Your task to perform on an android device: Clear the shopping cart on target.com. Add "amazon basics triple a" to the cart on target.com Image 0: 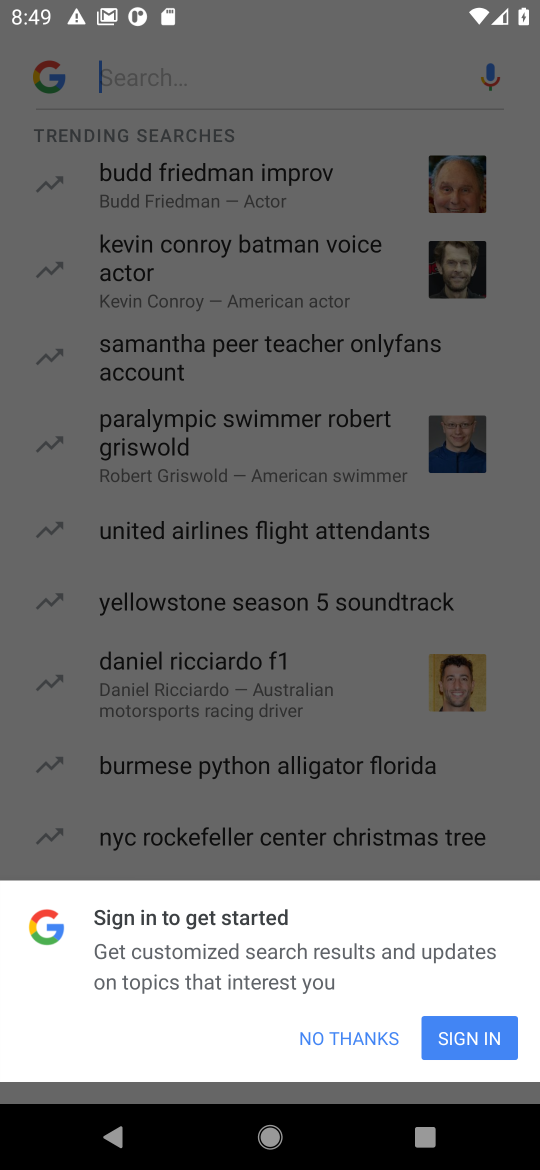
Step 0: press home button
Your task to perform on an android device: Clear the shopping cart on target.com. Add "amazon basics triple a" to the cart on target.com Image 1: 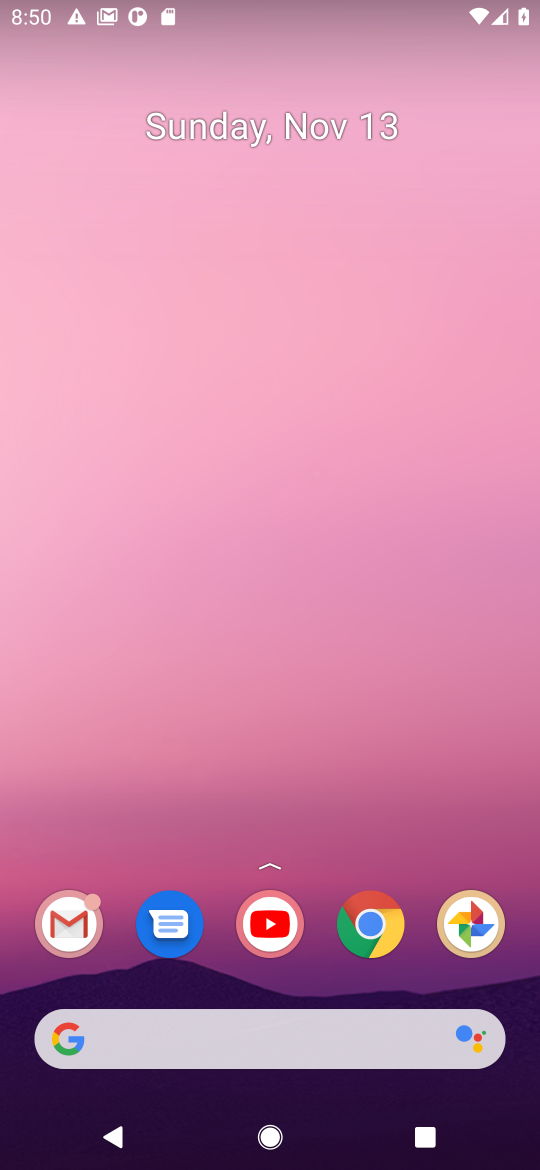
Step 1: click (370, 929)
Your task to perform on an android device: Clear the shopping cart on target.com. Add "amazon basics triple a" to the cart on target.com Image 2: 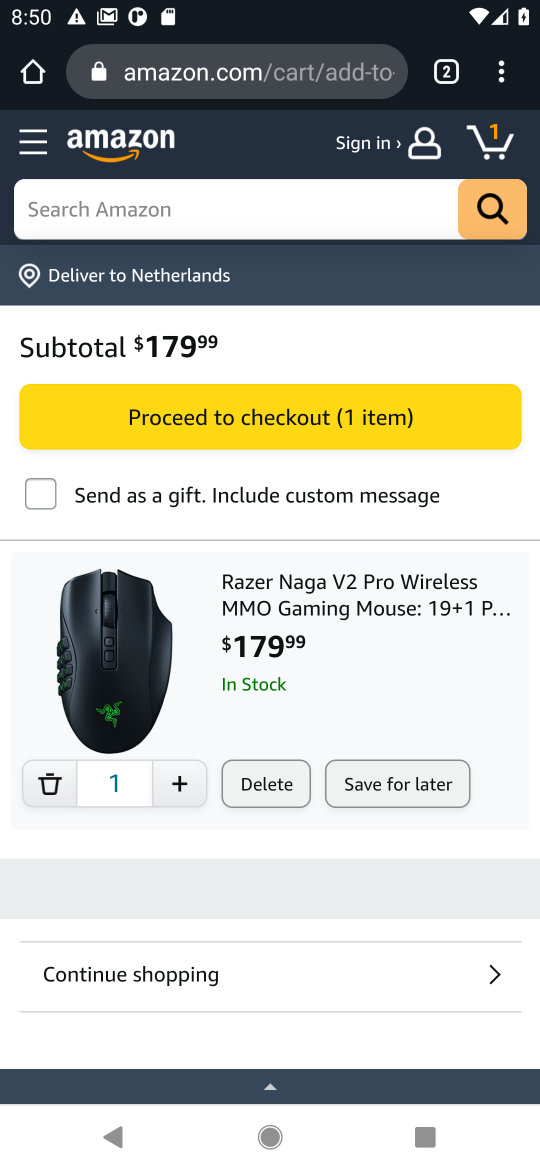
Step 2: click (300, 85)
Your task to perform on an android device: Clear the shopping cart on target.com. Add "amazon basics triple a" to the cart on target.com Image 3: 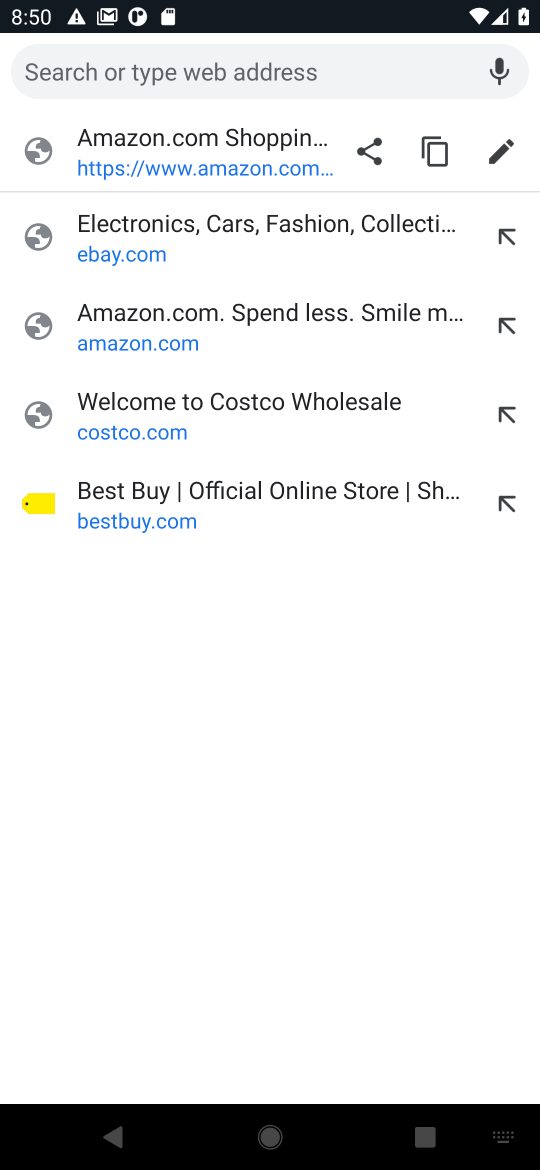
Step 3: type "target.com"
Your task to perform on an android device: Clear the shopping cart on target.com. Add "amazon basics triple a" to the cart on target.com Image 4: 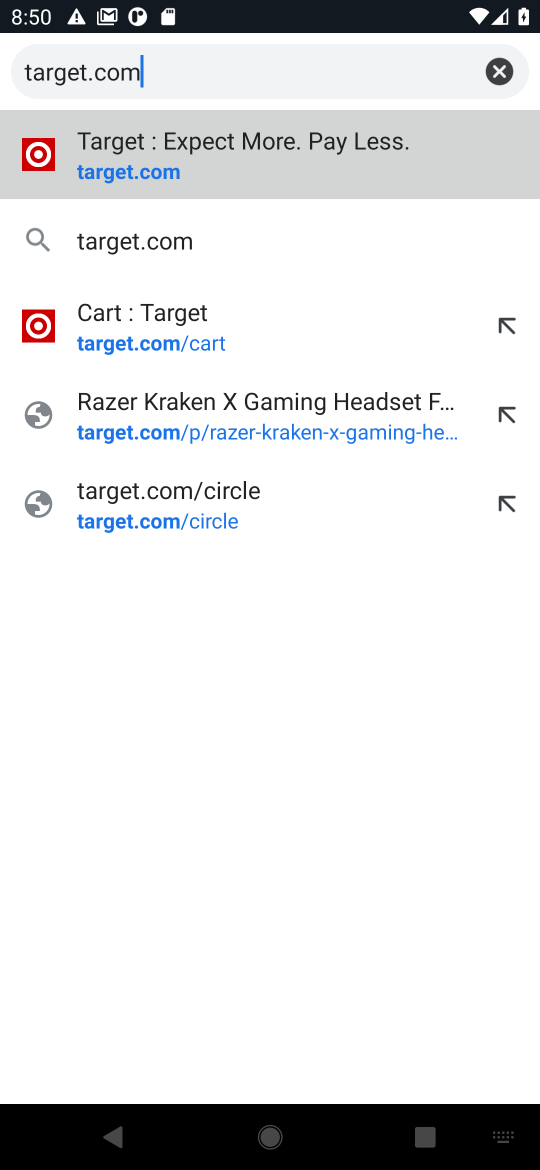
Step 4: click (175, 176)
Your task to perform on an android device: Clear the shopping cart on target.com. Add "amazon basics triple a" to the cart on target.com Image 5: 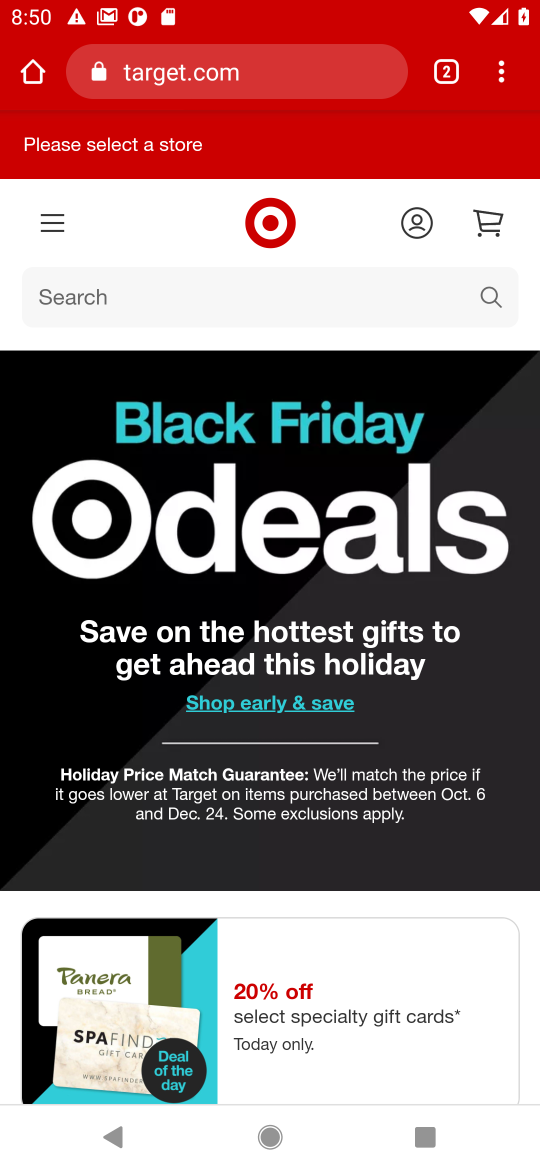
Step 5: click (489, 219)
Your task to perform on an android device: Clear the shopping cart on target.com. Add "amazon basics triple a" to the cart on target.com Image 6: 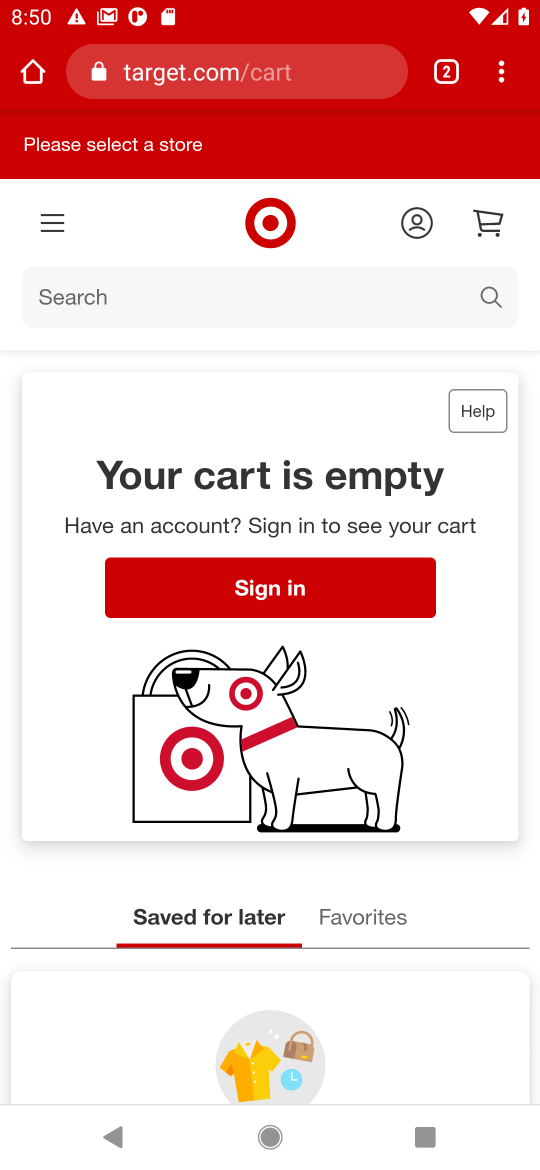
Step 6: click (488, 298)
Your task to perform on an android device: Clear the shopping cart on target.com. Add "amazon basics triple a" to the cart on target.com Image 7: 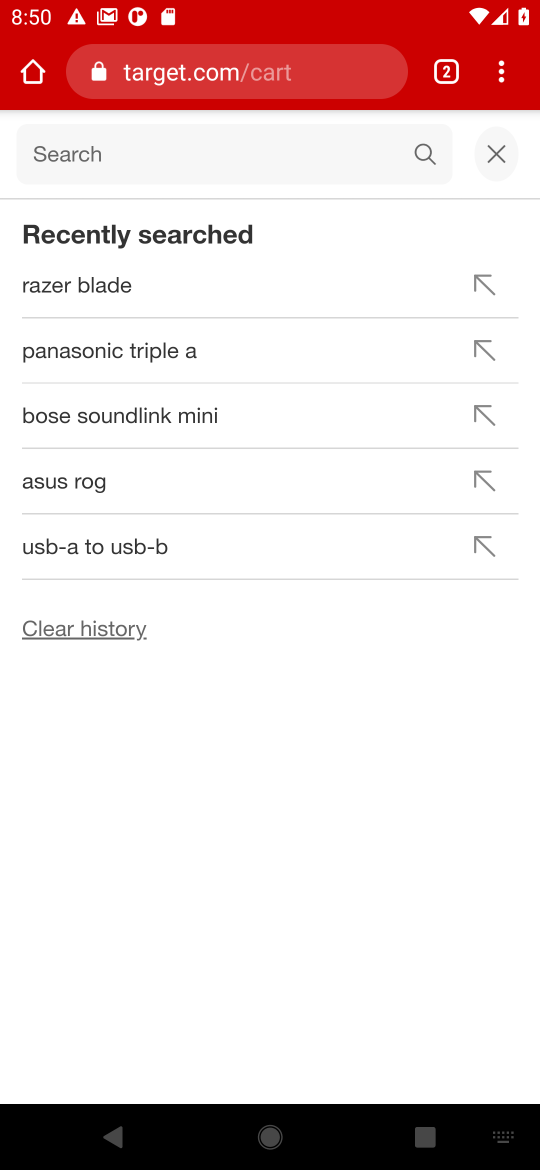
Step 7: type "amazon basics triple a"
Your task to perform on an android device: Clear the shopping cart on target.com. Add "amazon basics triple a" to the cart on target.com Image 8: 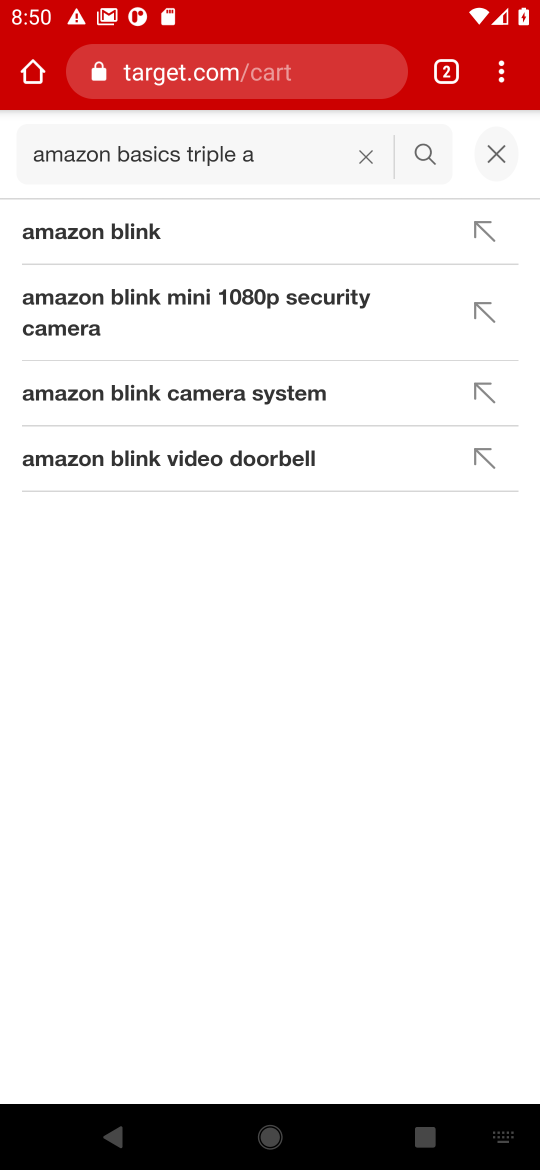
Step 8: click (423, 155)
Your task to perform on an android device: Clear the shopping cart on target.com. Add "amazon basics triple a" to the cart on target.com Image 9: 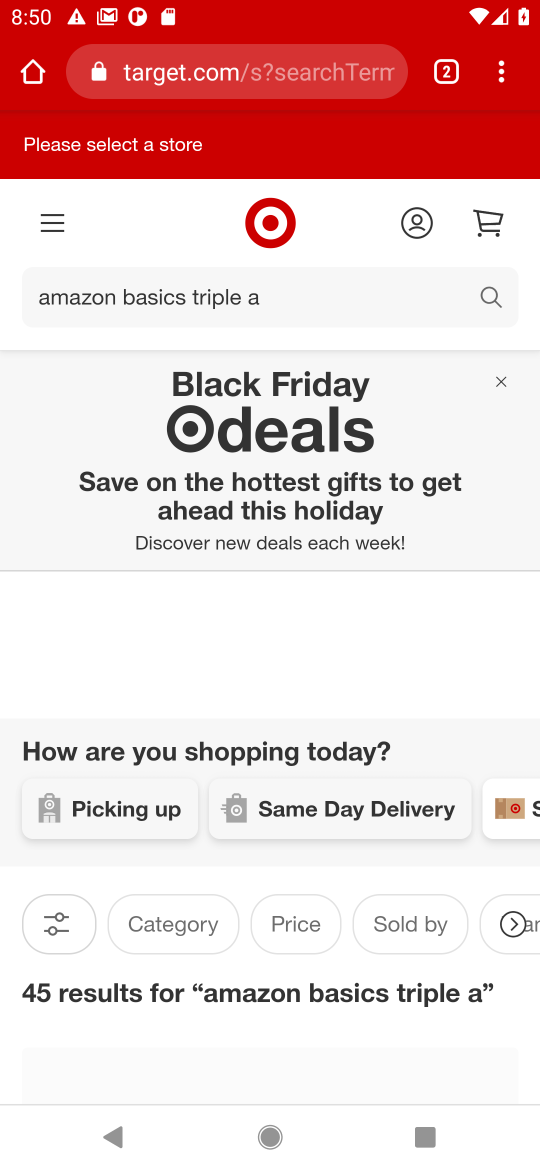
Step 9: task complete